Your task to perform on an android device: allow cookies in the chrome app Image 0: 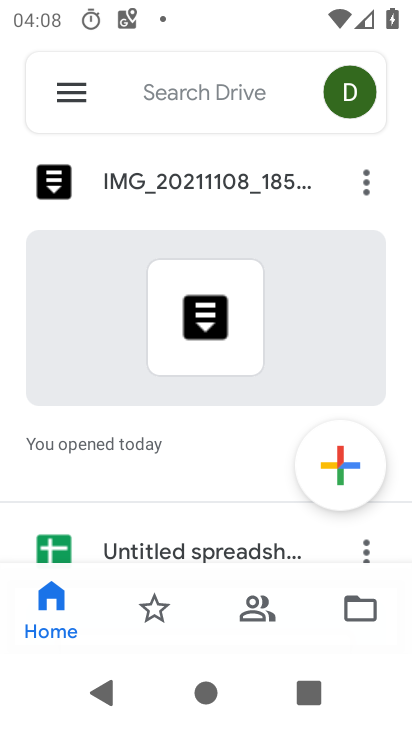
Step 0: press home button
Your task to perform on an android device: allow cookies in the chrome app Image 1: 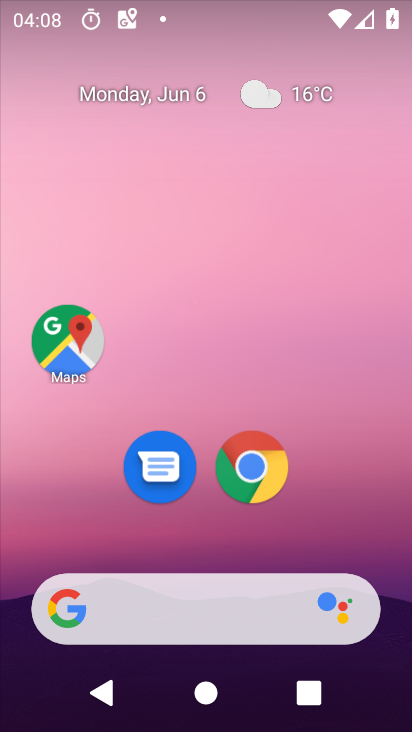
Step 1: click (245, 460)
Your task to perform on an android device: allow cookies in the chrome app Image 2: 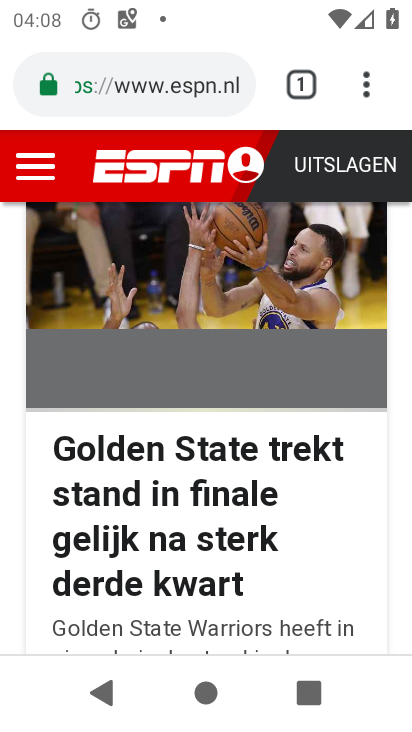
Step 2: click (365, 80)
Your task to perform on an android device: allow cookies in the chrome app Image 3: 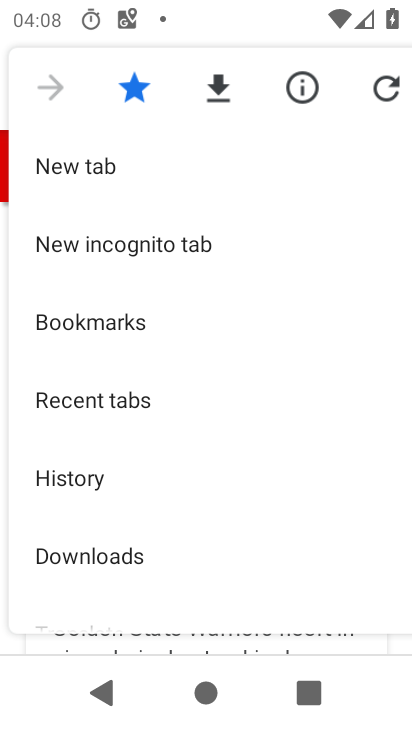
Step 3: drag from (200, 543) to (234, 45)
Your task to perform on an android device: allow cookies in the chrome app Image 4: 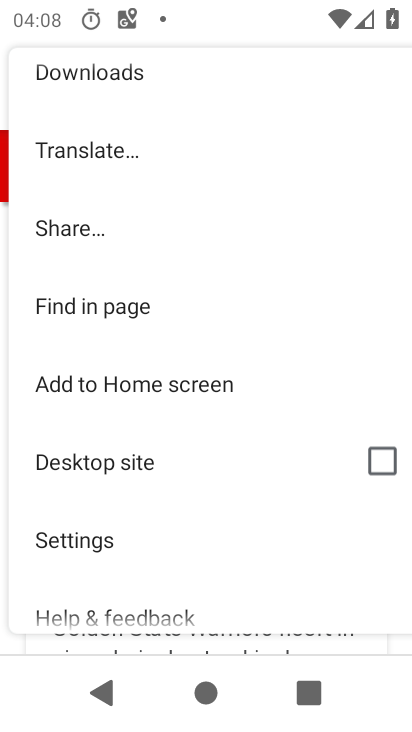
Step 4: click (120, 531)
Your task to perform on an android device: allow cookies in the chrome app Image 5: 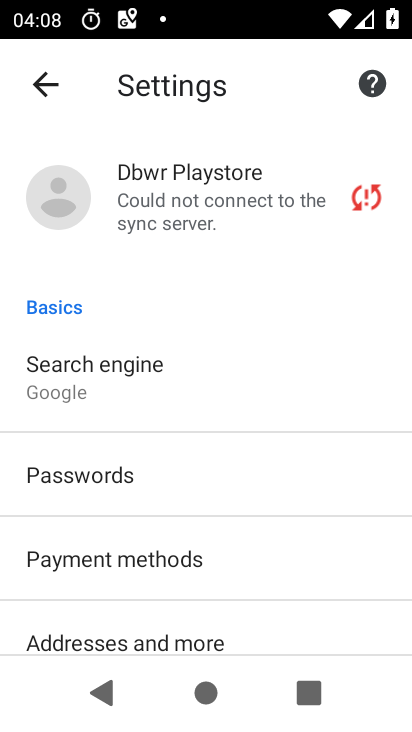
Step 5: drag from (244, 625) to (265, 65)
Your task to perform on an android device: allow cookies in the chrome app Image 6: 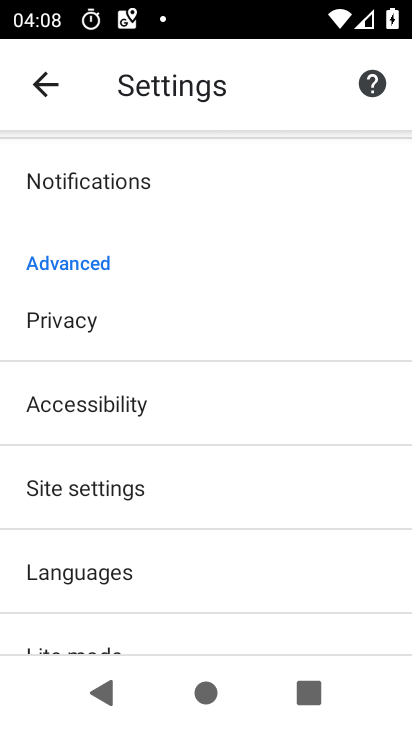
Step 6: click (173, 489)
Your task to perform on an android device: allow cookies in the chrome app Image 7: 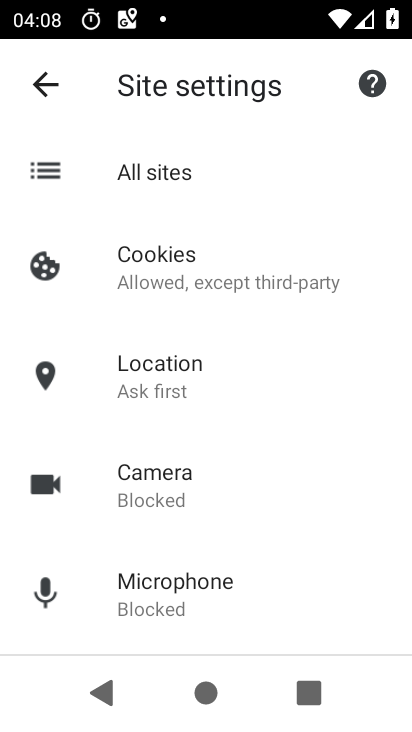
Step 7: click (215, 256)
Your task to perform on an android device: allow cookies in the chrome app Image 8: 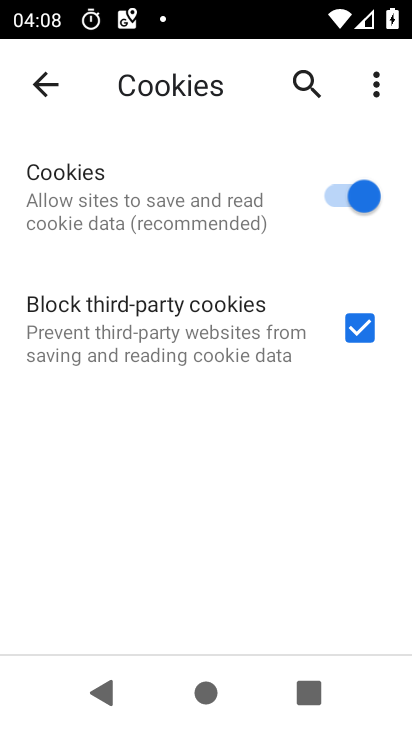
Step 8: task complete